Your task to perform on an android device: snooze an email in the gmail app Image 0: 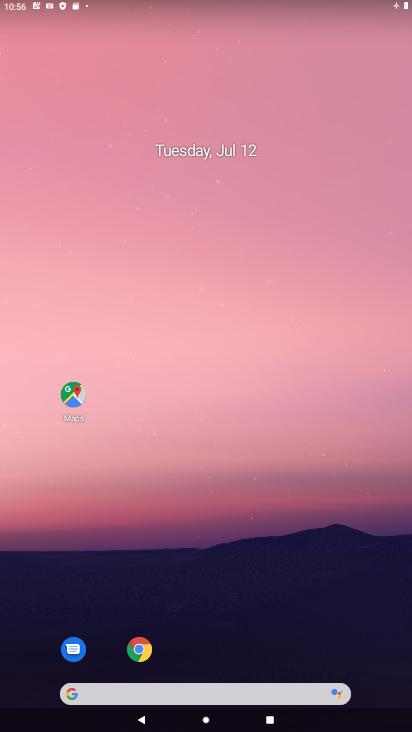
Step 0: drag from (397, 669) to (360, 130)
Your task to perform on an android device: snooze an email in the gmail app Image 1: 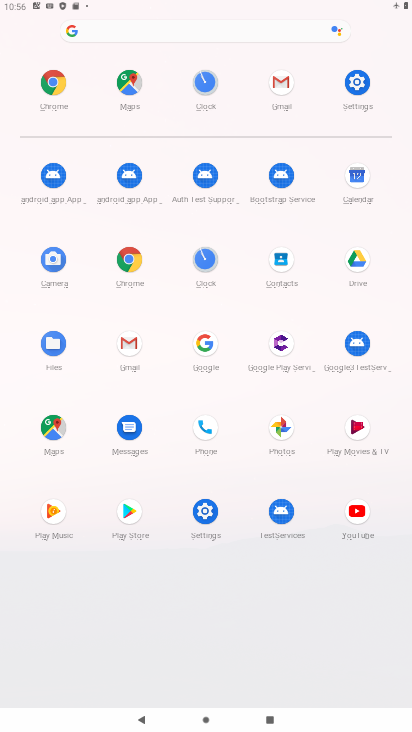
Step 1: click (128, 345)
Your task to perform on an android device: snooze an email in the gmail app Image 2: 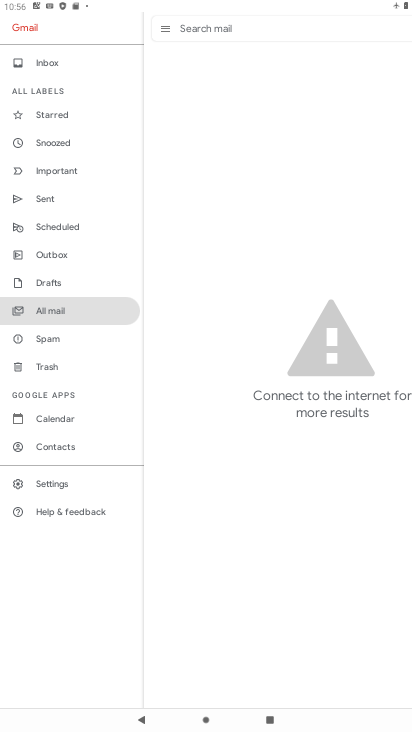
Step 2: click (51, 141)
Your task to perform on an android device: snooze an email in the gmail app Image 3: 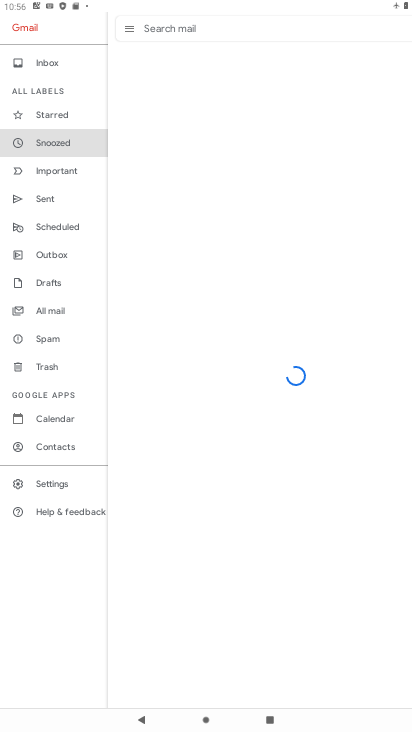
Step 3: click (49, 314)
Your task to perform on an android device: snooze an email in the gmail app Image 4: 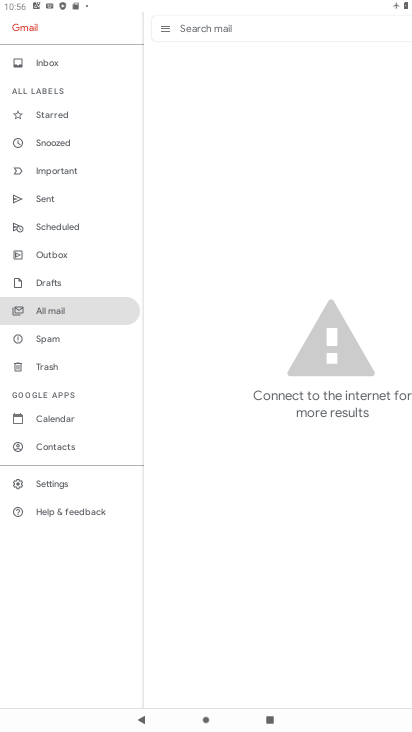
Step 4: task complete